Your task to perform on an android device: change the clock display to digital Image 0: 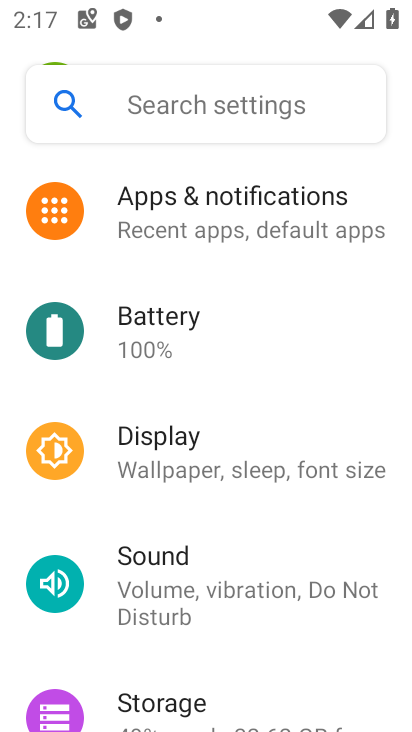
Step 0: click (285, 458)
Your task to perform on an android device: change the clock display to digital Image 1: 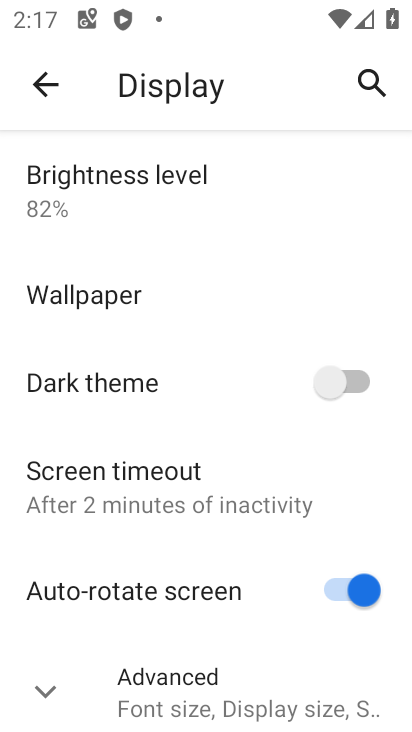
Step 1: press home button
Your task to perform on an android device: change the clock display to digital Image 2: 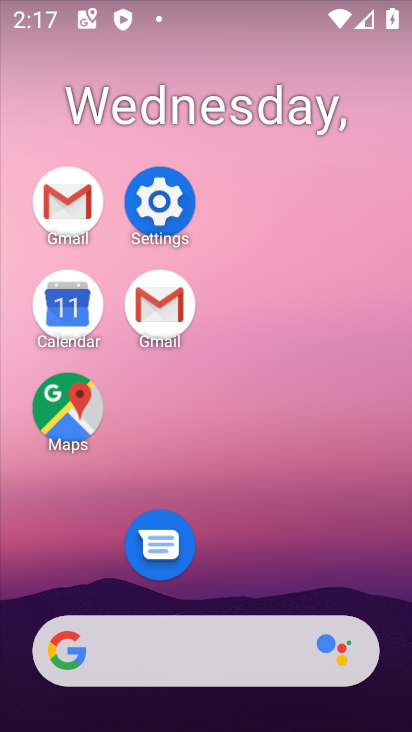
Step 2: drag from (301, 537) to (289, 157)
Your task to perform on an android device: change the clock display to digital Image 3: 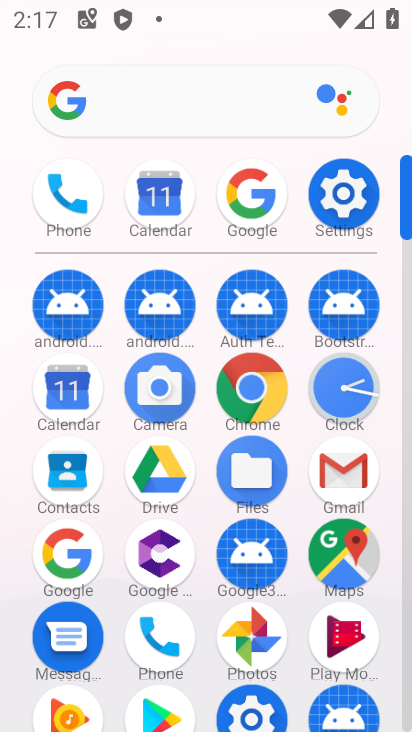
Step 3: drag from (363, 395) to (232, 254)
Your task to perform on an android device: change the clock display to digital Image 4: 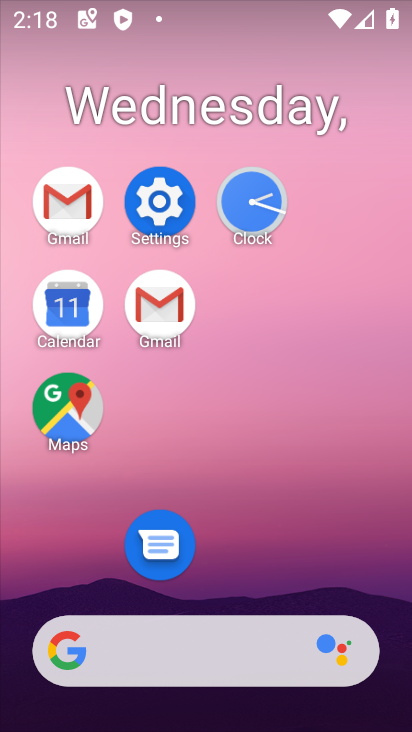
Step 4: click (260, 204)
Your task to perform on an android device: change the clock display to digital Image 5: 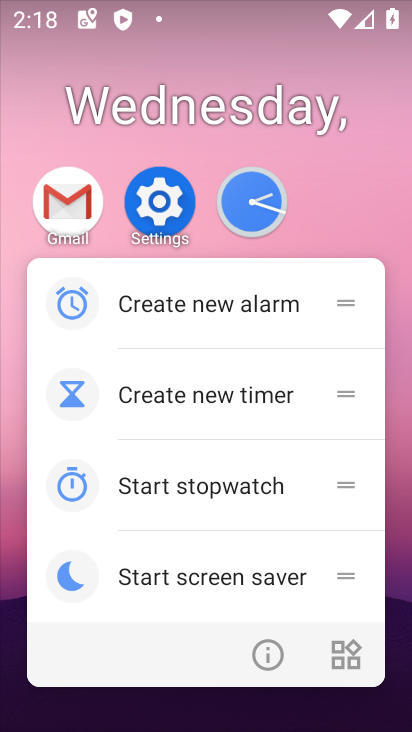
Step 5: click (249, 207)
Your task to perform on an android device: change the clock display to digital Image 6: 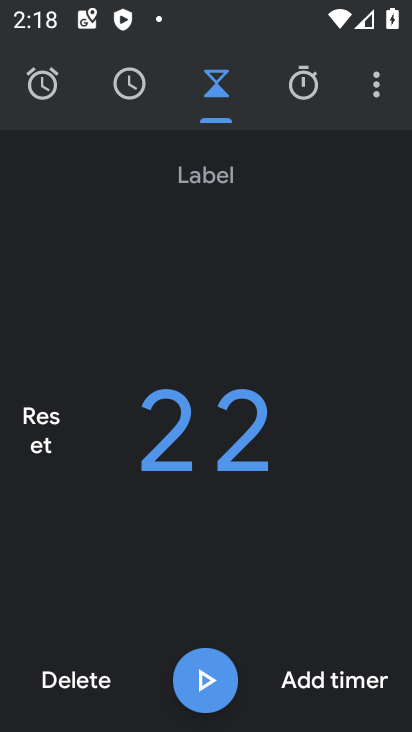
Step 6: click (367, 95)
Your task to perform on an android device: change the clock display to digital Image 7: 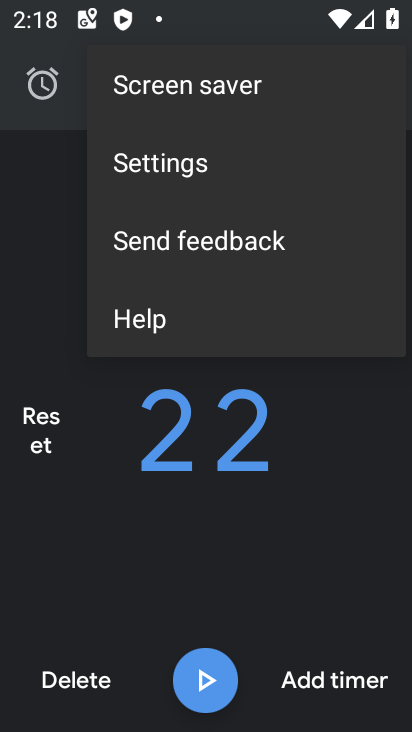
Step 7: click (215, 175)
Your task to perform on an android device: change the clock display to digital Image 8: 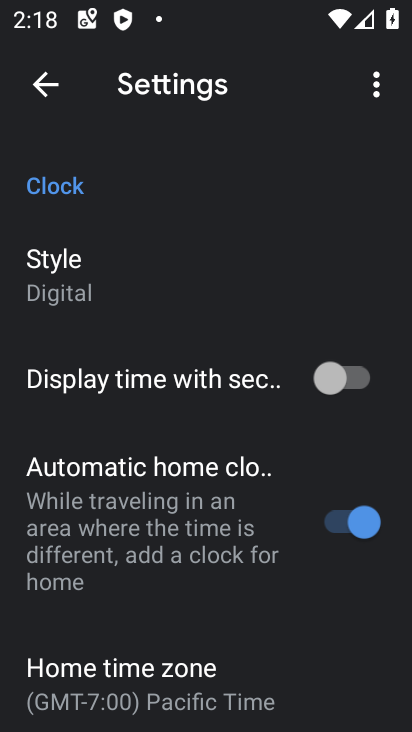
Step 8: task complete